Your task to perform on an android device: Open Google Image 0: 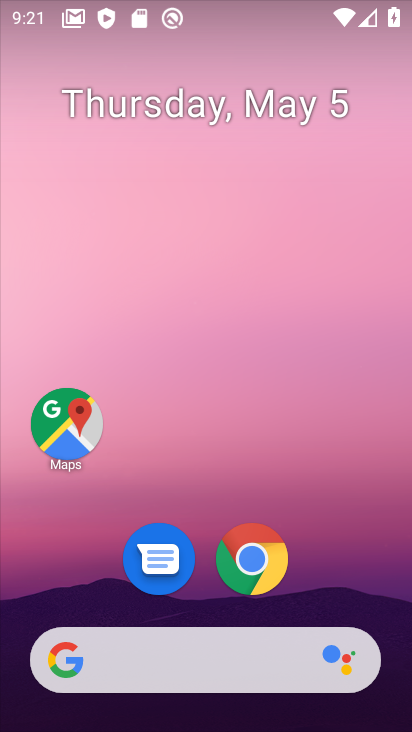
Step 0: click (110, 649)
Your task to perform on an android device: Open Google Image 1: 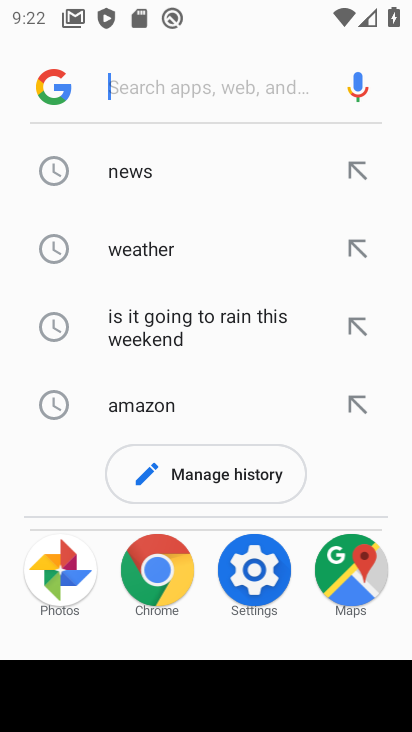
Step 1: task complete